Your task to perform on an android device: Go to Amazon Image 0: 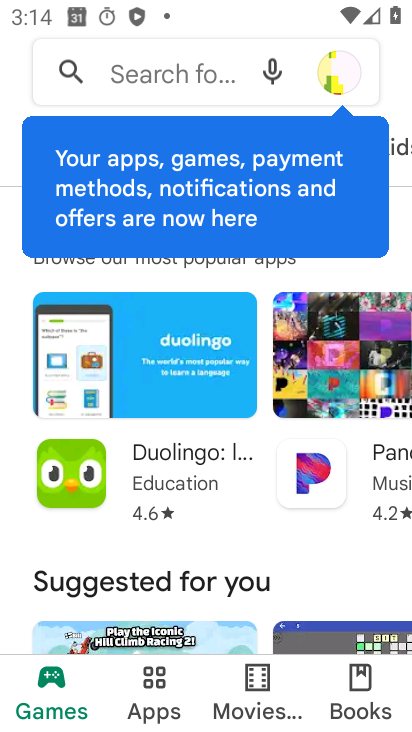
Step 0: press home button
Your task to perform on an android device: Go to Amazon Image 1: 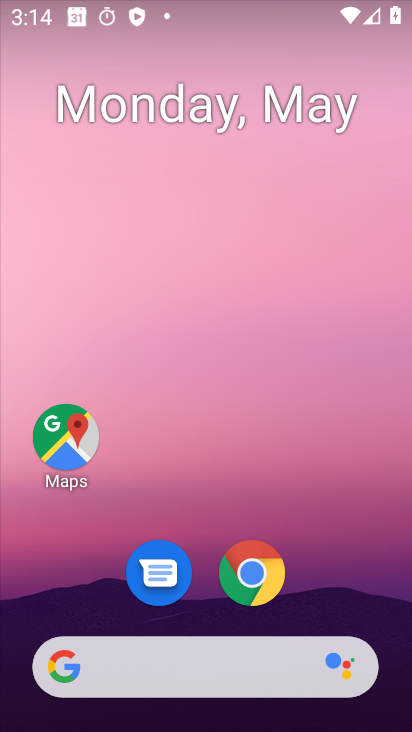
Step 1: drag from (375, 625) to (176, 0)
Your task to perform on an android device: Go to Amazon Image 2: 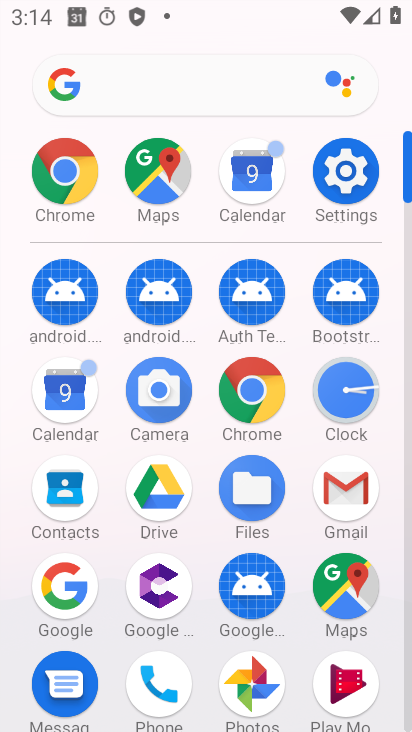
Step 2: click (55, 173)
Your task to perform on an android device: Go to Amazon Image 3: 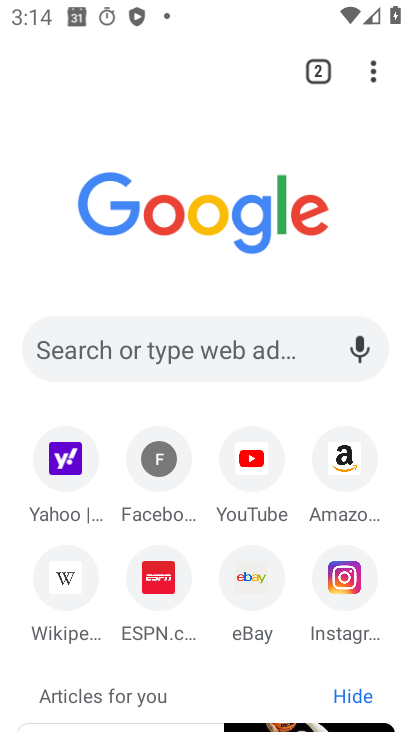
Step 3: click (337, 455)
Your task to perform on an android device: Go to Amazon Image 4: 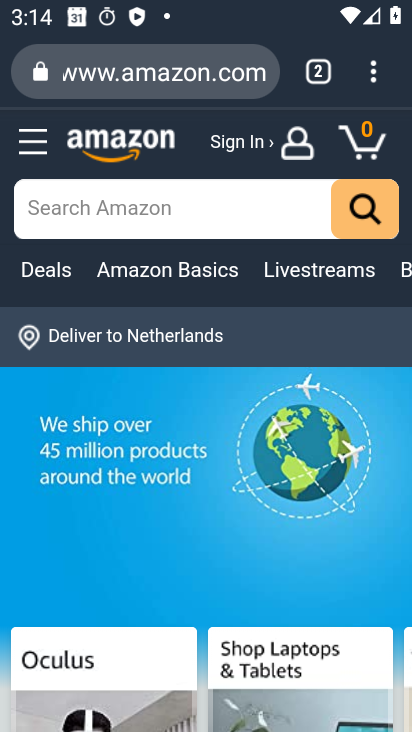
Step 4: task complete